Your task to perform on an android device: Open the calendar app, open the side menu, and click the "Day" option Image 0: 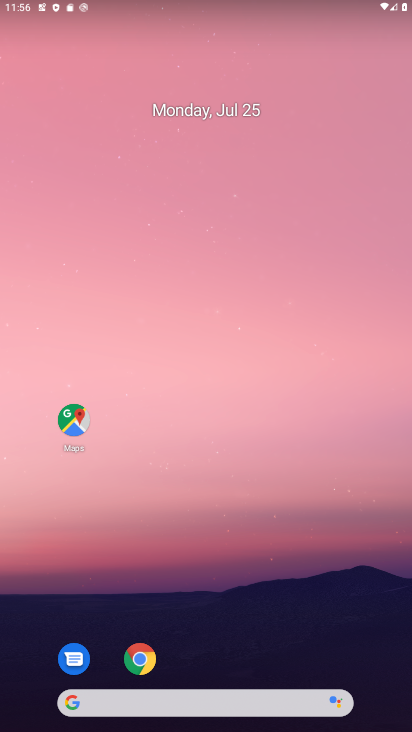
Step 0: drag from (198, 586) to (268, 152)
Your task to perform on an android device: Open the calendar app, open the side menu, and click the "Day" option Image 1: 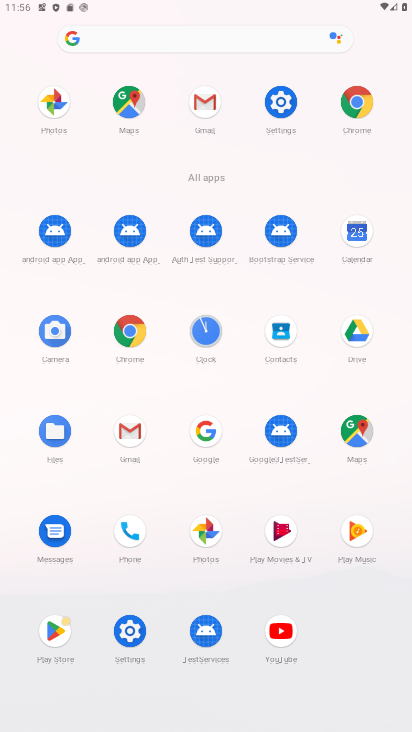
Step 1: click (356, 229)
Your task to perform on an android device: Open the calendar app, open the side menu, and click the "Day" option Image 2: 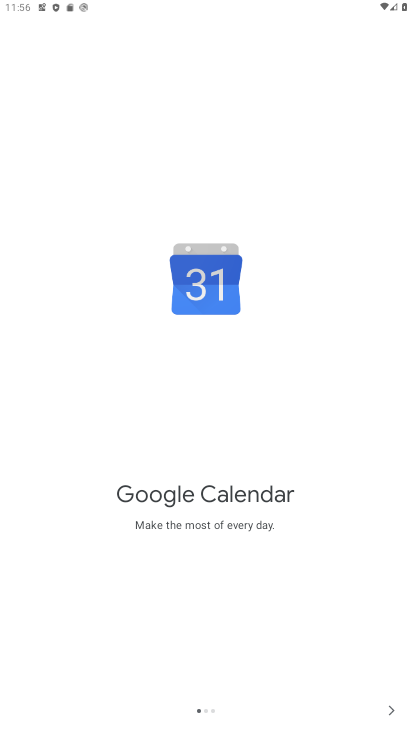
Step 2: drag from (271, 614) to (269, 404)
Your task to perform on an android device: Open the calendar app, open the side menu, and click the "Day" option Image 3: 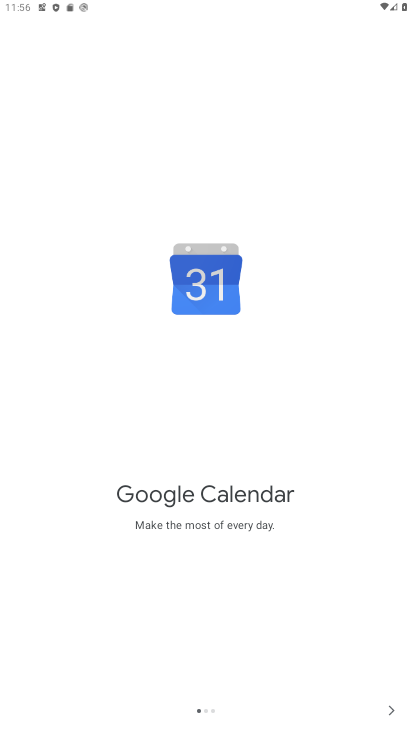
Step 3: click (390, 711)
Your task to perform on an android device: Open the calendar app, open the side menu, and click the "Day" option Image 4: 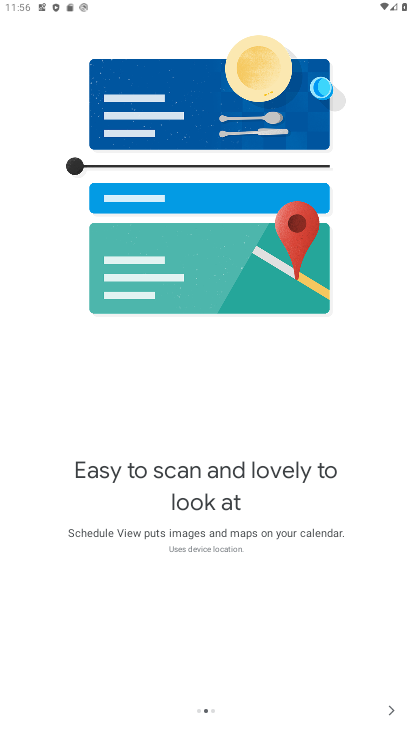
Step 4: click (389, 704)
Your task to perform on an android device: Open the calendar app, open the side menu, and click the "Day" option Image 5: 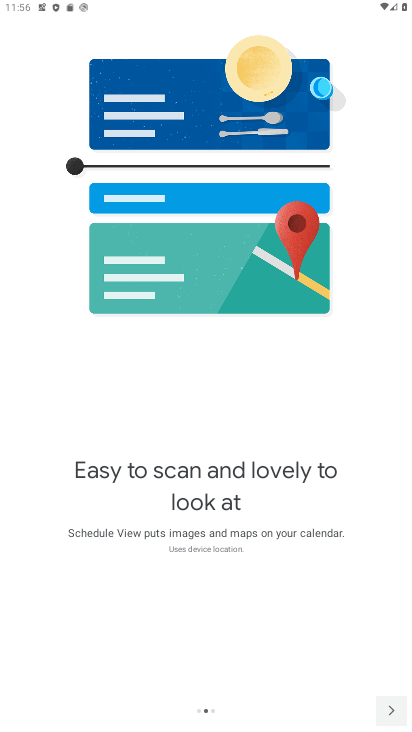
Step 5: click (389, 704)
Your task to perform on an android device: Open the calendar app, open the side menu, and click the "Day" option Image 6: 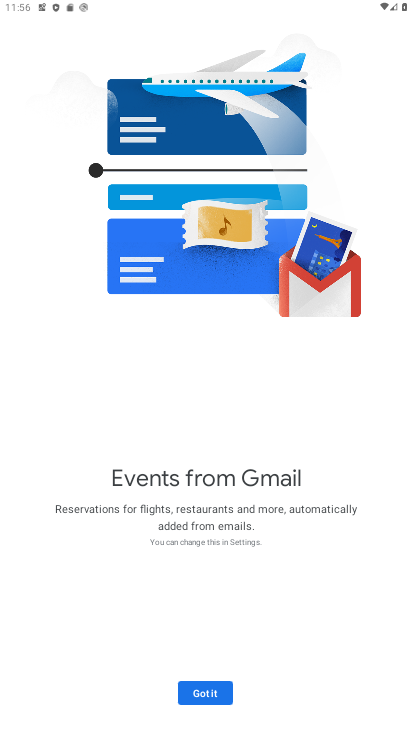
Step 6: click (192, 691)
Your task to perform on an android device: Open the calendar app, open the side menu, and click the "Day" option Image 7: 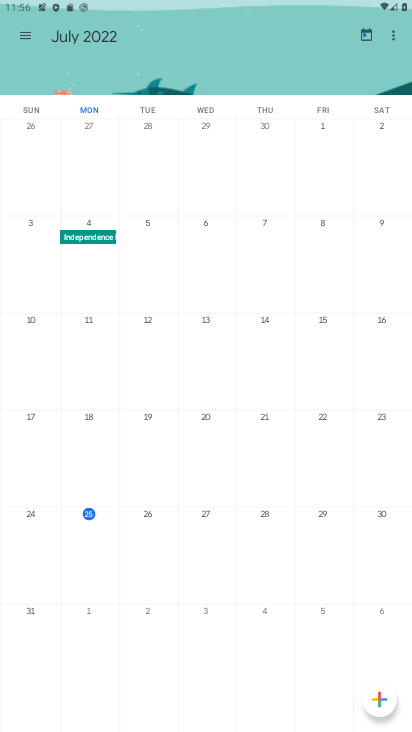
Step 7: click (29, 35)
Your task to perform on an android device: Open the calendar app, open the side menu, and click the "Day" option Image 8: 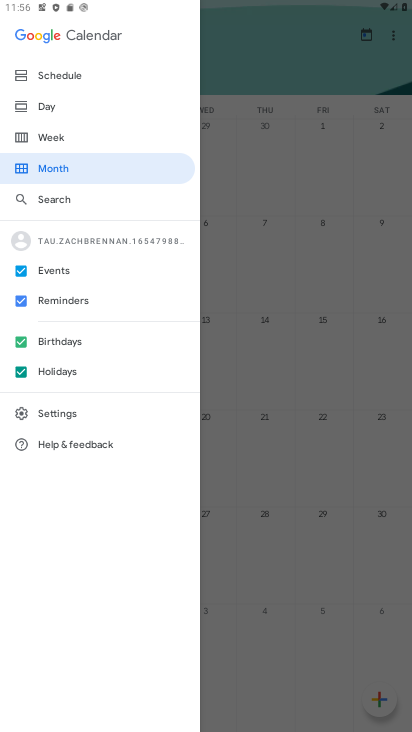
Step 8: click (58, 109)
Your task to perform on an android device: Open the calendar app, open the side menu, and click the "Day" option Image 9: 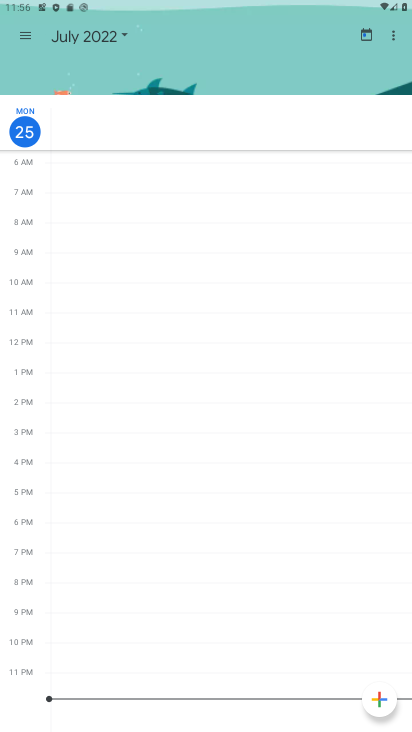
Step 9: task complete